Your task to perform on an android device: open a new tab in the chrome app Image 0: 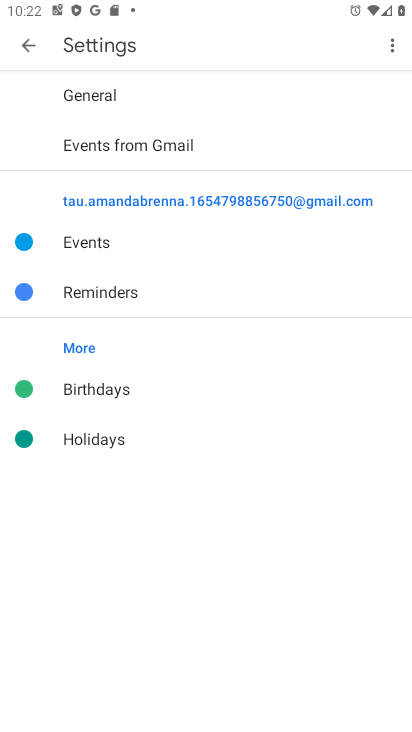
Step 0: press home button
Your task to perform on an android device: open a new tab in the chrome app Image 1: 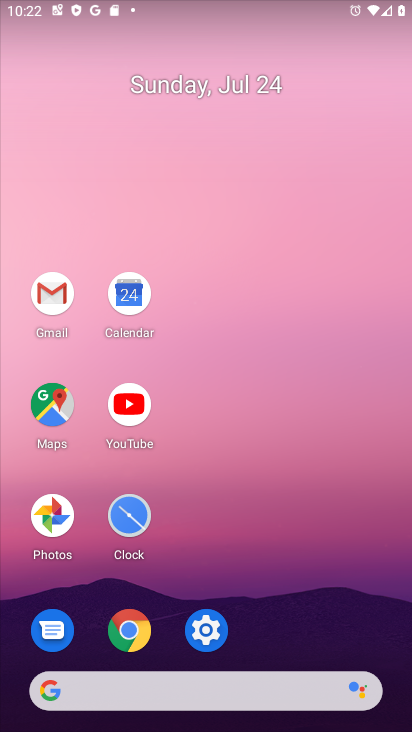
Step 1: click (131, 629)
Your task to perform on an android device: open a new tab in the chrome app Image 2: 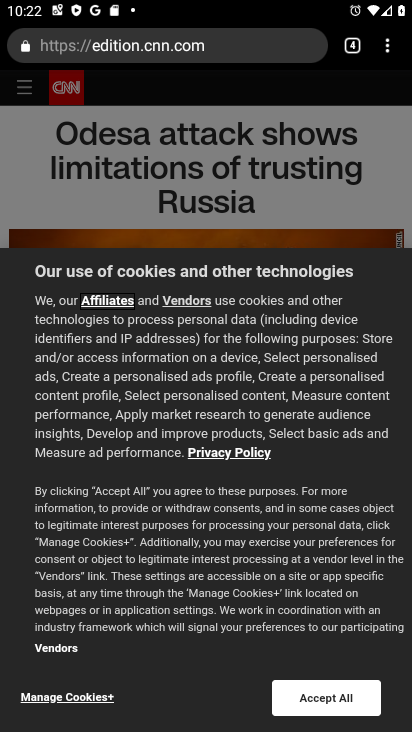
Step 2: click (385, 47)
Your task to perform on an android device: open a new tab in the chrome app Image 3: 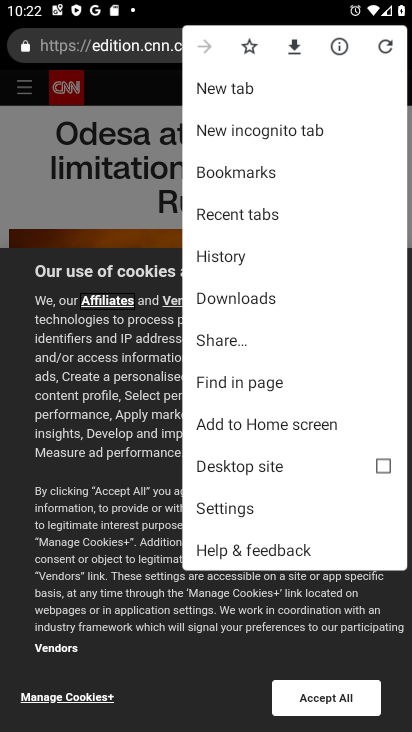
Step 3: click (226, 85)
Your task to perform on an android device: open a new tab in the chrome app Image 4: 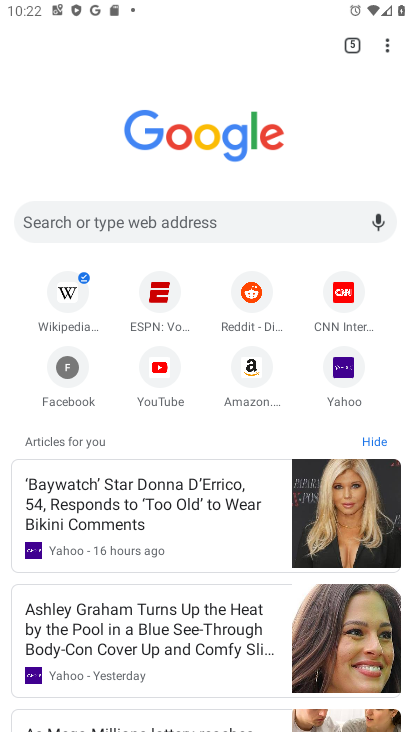
Step 4: task complete